Your task to perform on an android device: Open sound settings Image 0: 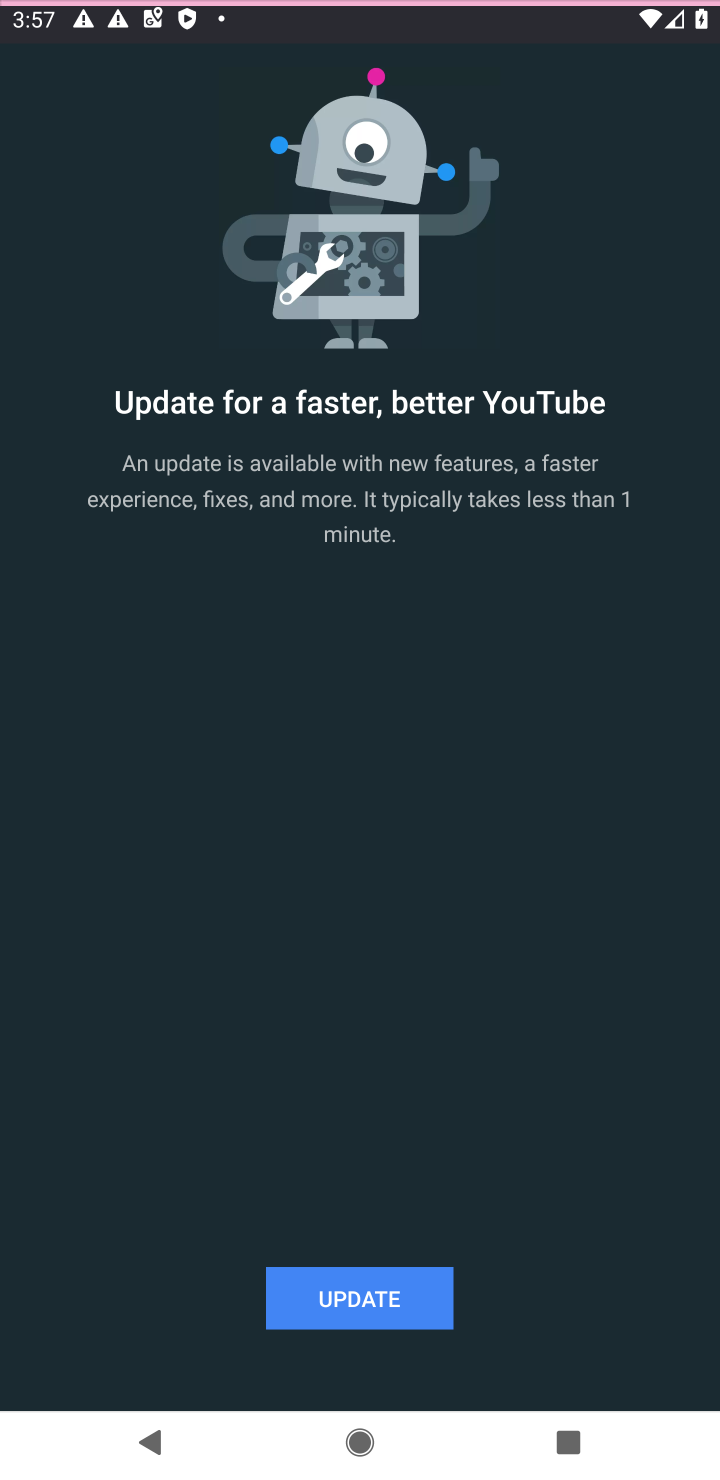
Step 0: press home button
Your task to perform on an android device: Open sound settings Image 1: 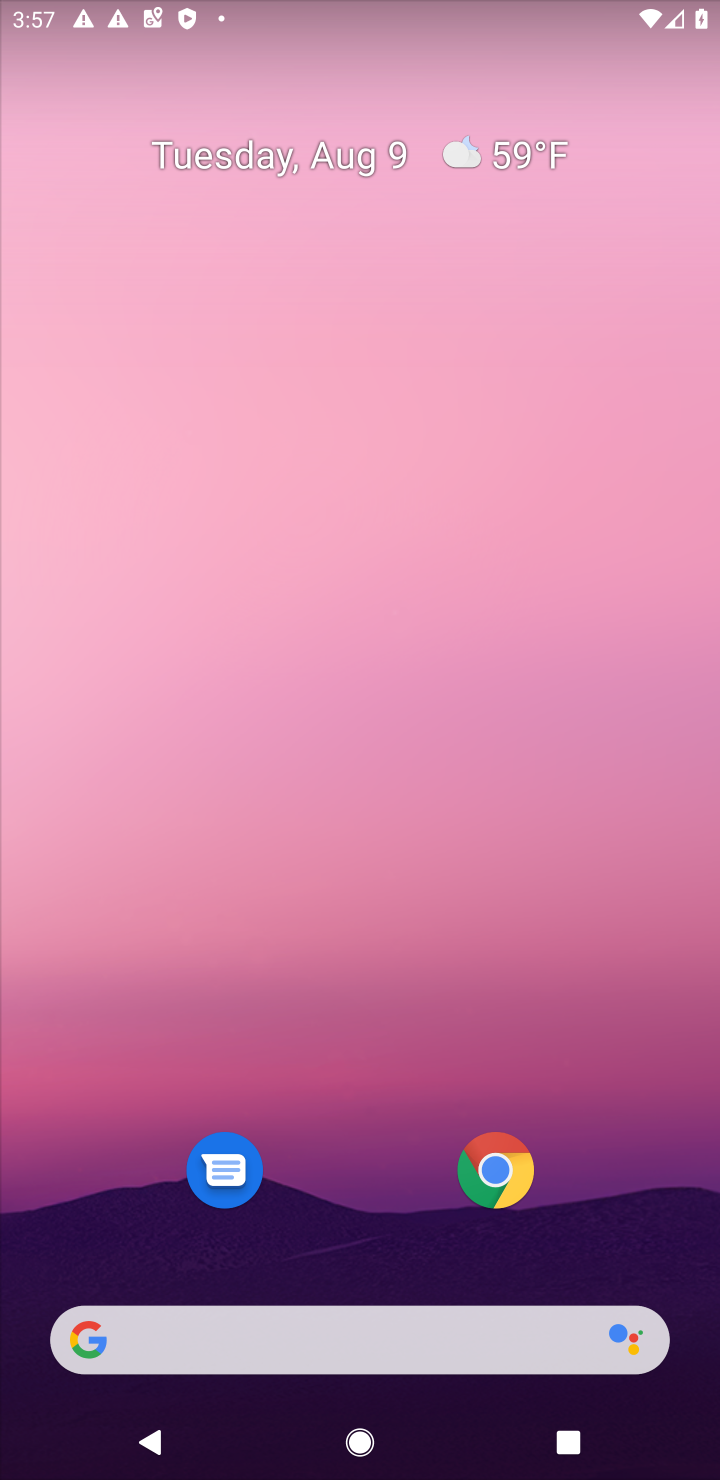
Step 1: drag from (315, 341) to (357, 0)
Your task to perform on an android device: Open sound settings Image 2: 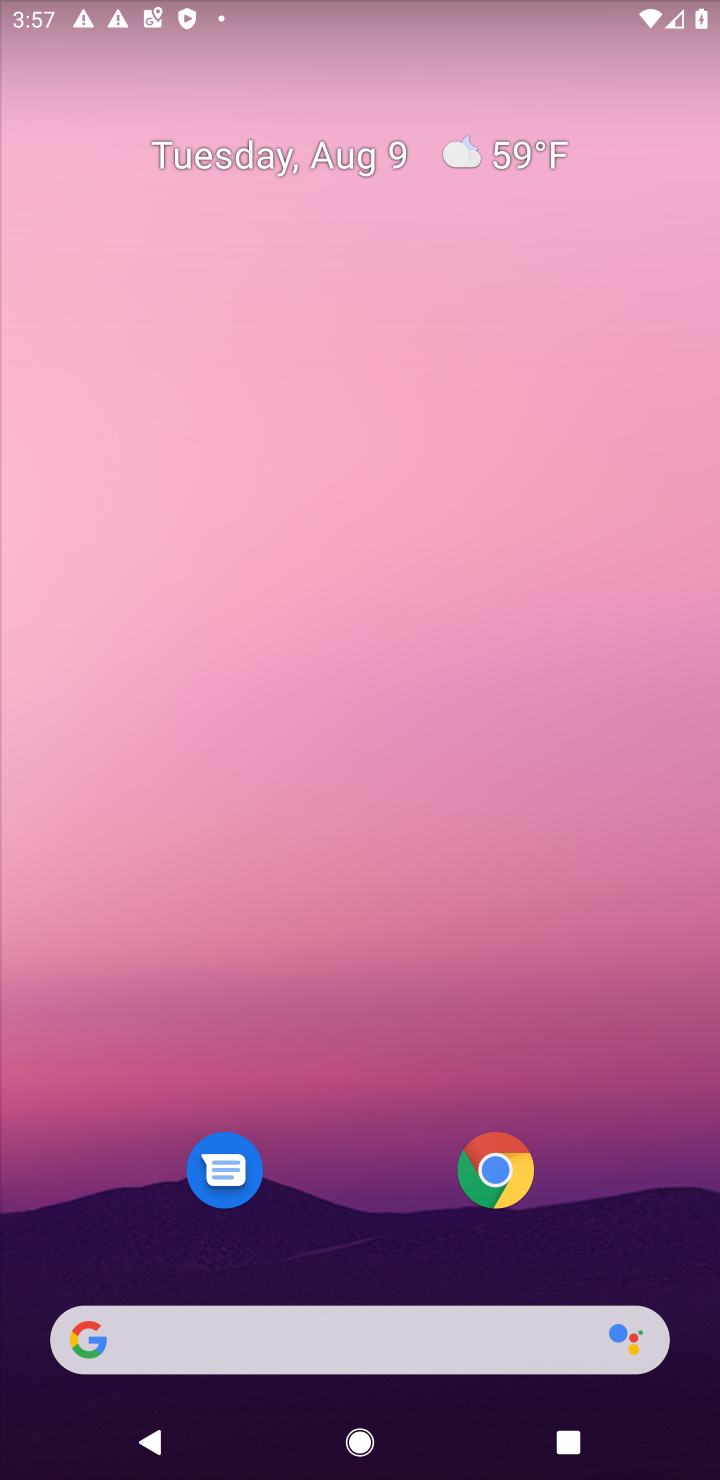
Step 2: drag from (355, 1229) to (492, 65)
Your task to perform on an android device: Open sound settings Image 3: 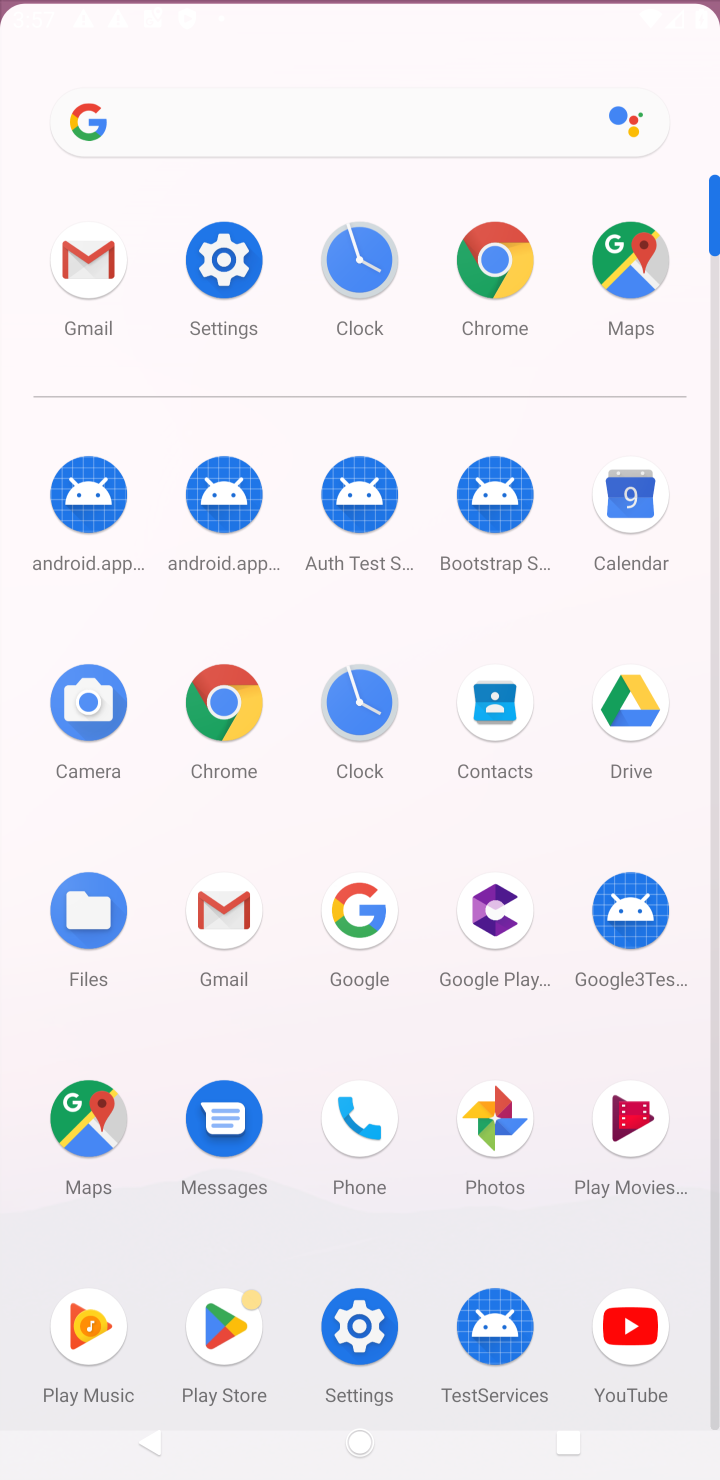
Step 3: click (221, 285)
Your task to perform on an android device: Open sound settings Image 4: 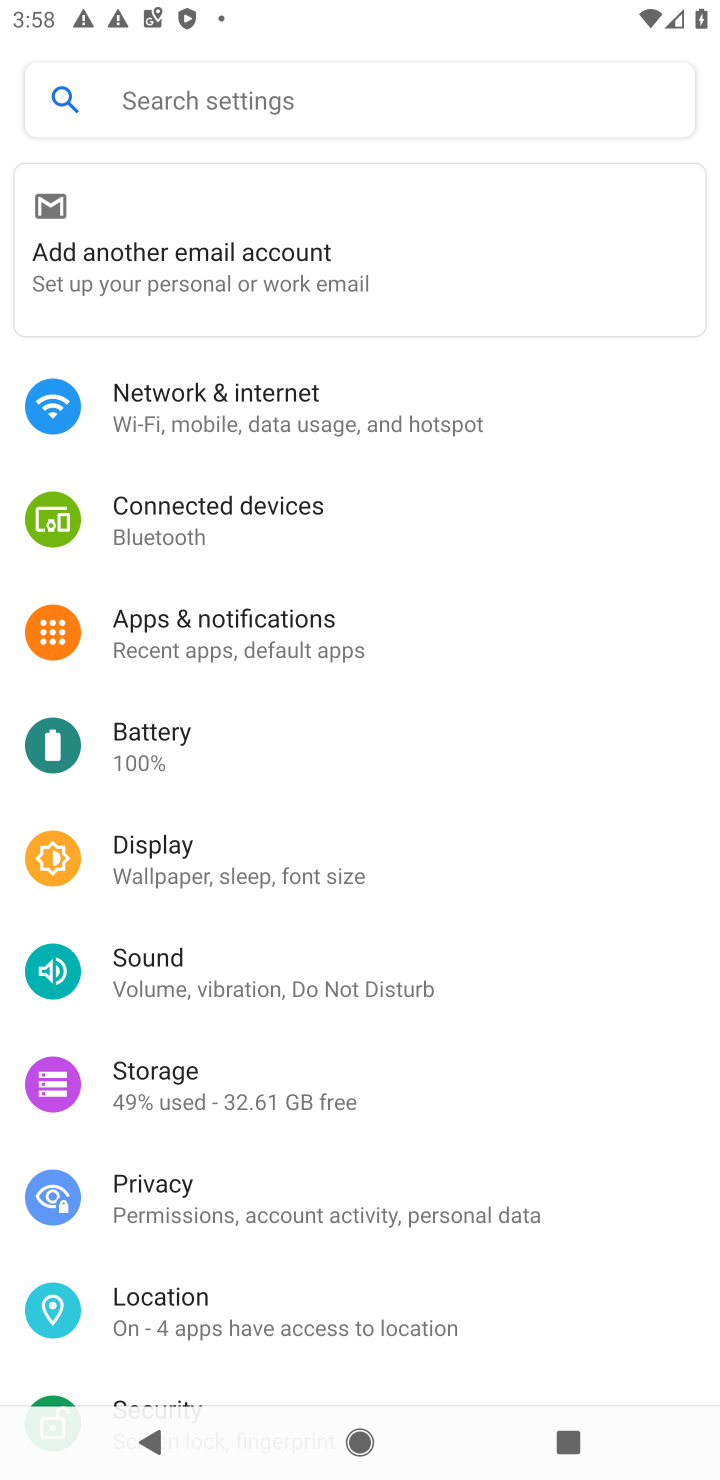
Step 4: click (160, 948)
Your task to perform on an android device: Open sound settings Image 5: 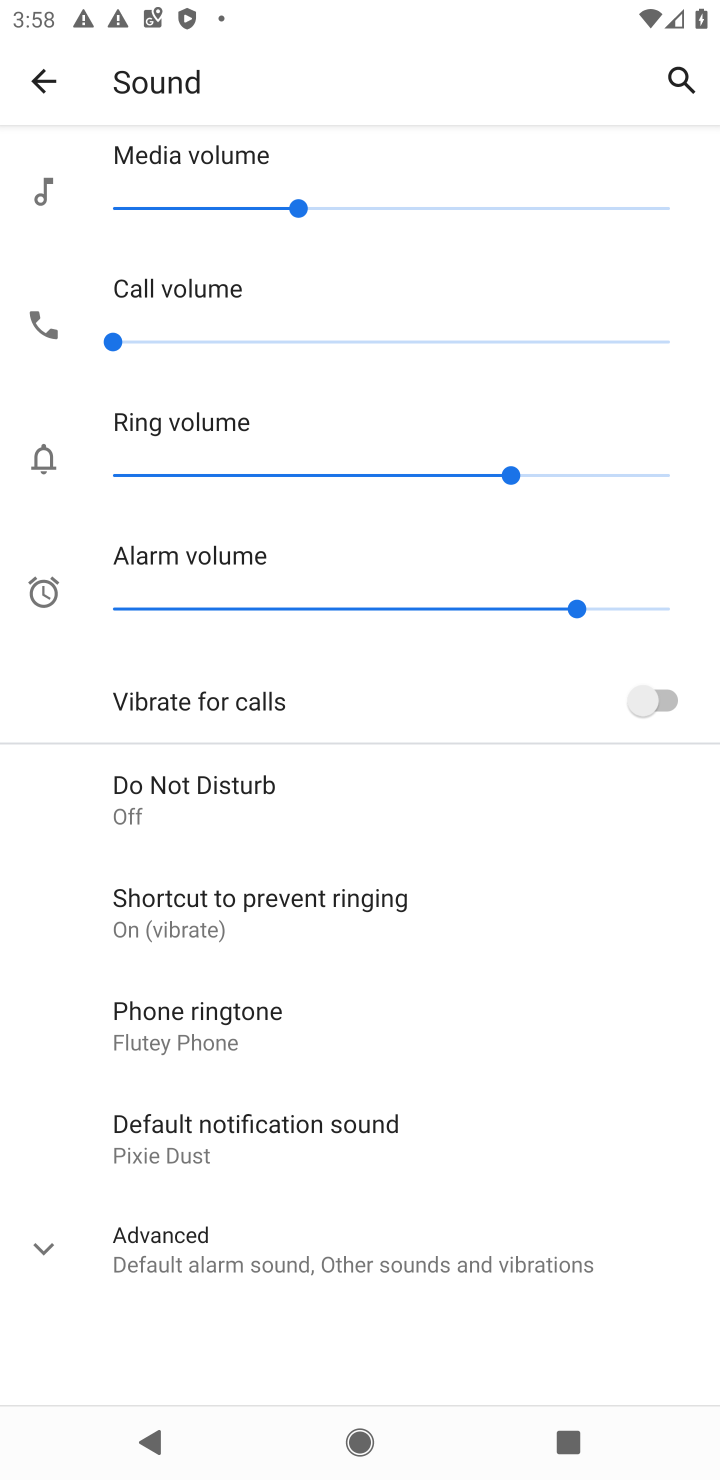
Step 5: task complete